Your task to perform on an android device: Go to Reddit.com Image 0: 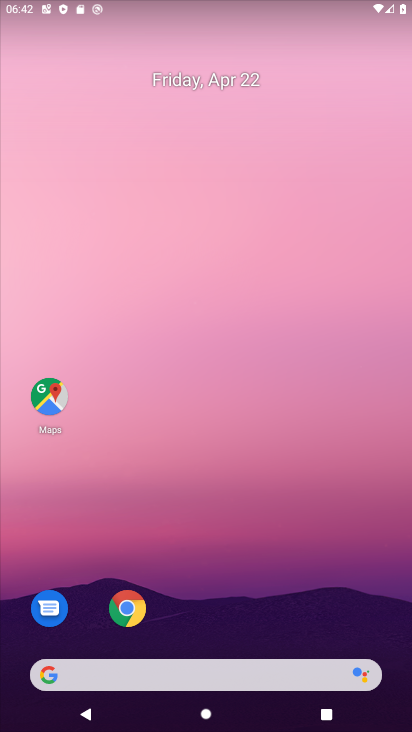
Step 0: drag from (257, 618) to (240, 210)
Your task to perform on an android device: Go to Reddit.com Image 1: 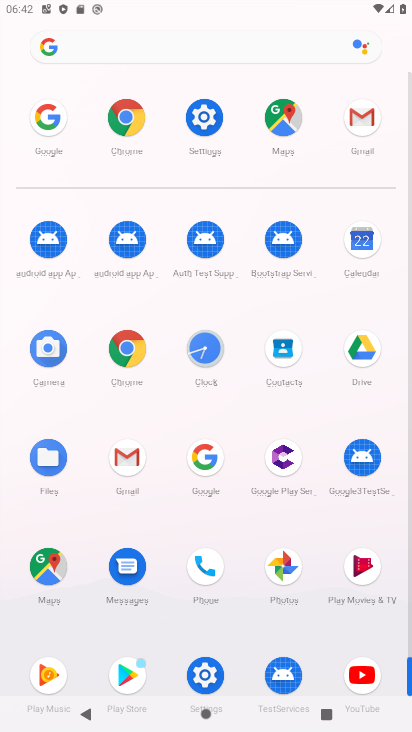
Step 1: click (125, 117)
Your task to perform on an android device: Go to Reddit.com Image 2: 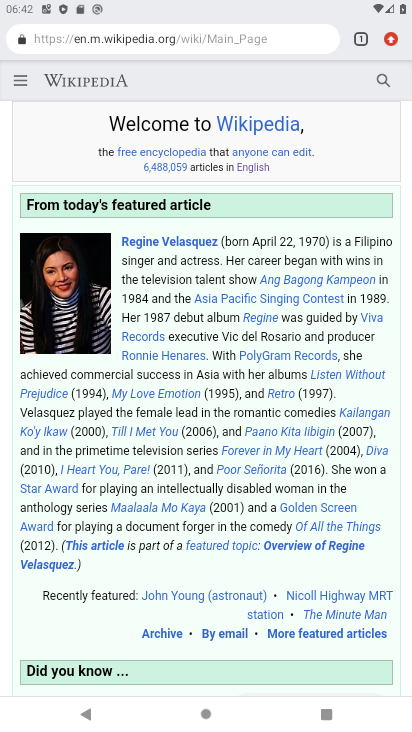
Step 2: click (147, 40)
Your task to perform on an android device: Go to Reddit.com Image 3: 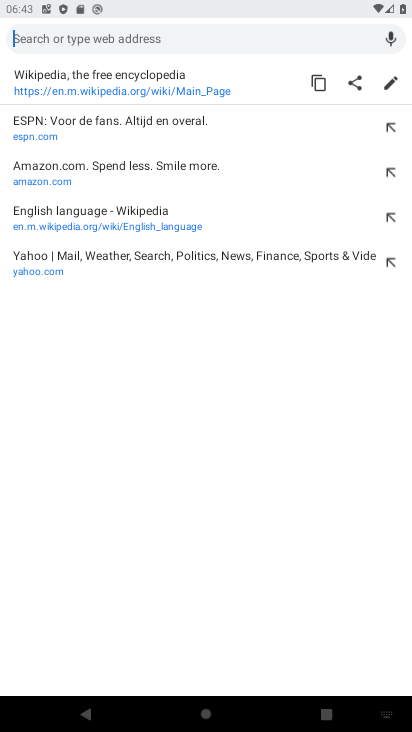
Step 3: type "www.reddit.com"
Your task to perform on an android device: Go to Reddit.com Image 4: 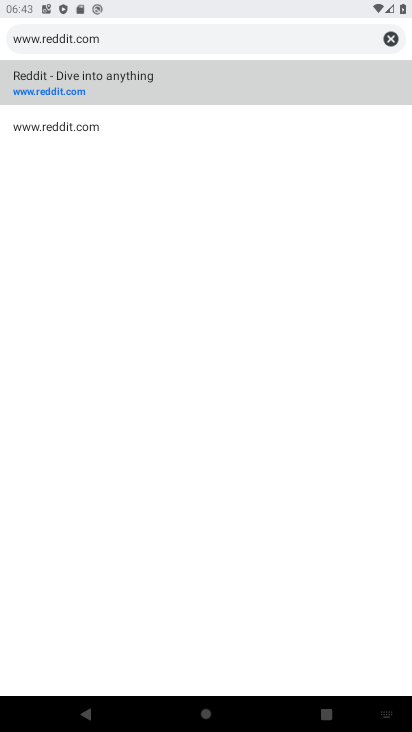
Step 4: click (55, 90)
Your task to perform on an android device: Go to Reddit.com Image 5: 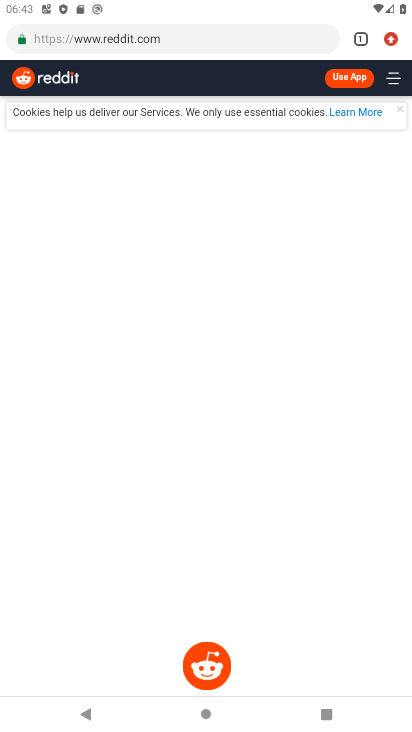
Step 5: task complete